Your task to perform on an android device: turn on sleep mode Image 0: 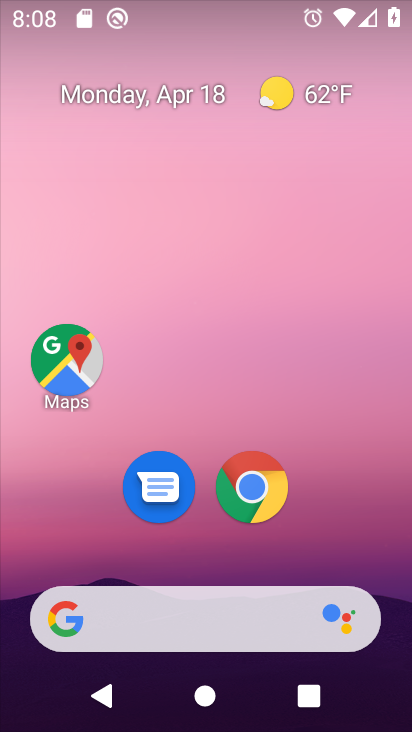
Step 0: press home button
Your task to perform on an android device: turn on sleep mode Image 1: 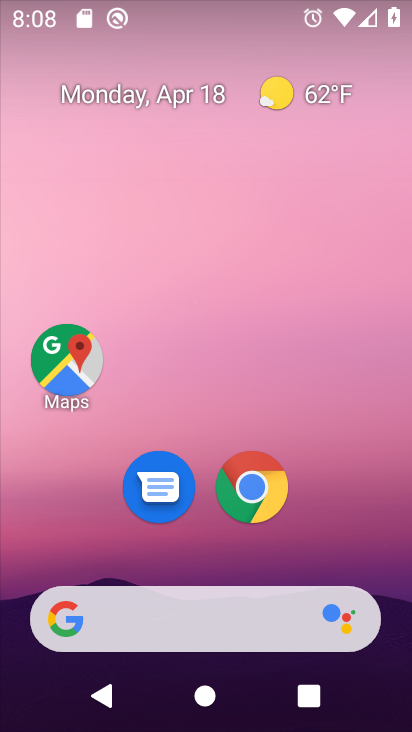
Step 1: drag from (218, 548) to (288, 73)
Your task to perform on an android device: turn on sleep mode Image 2: 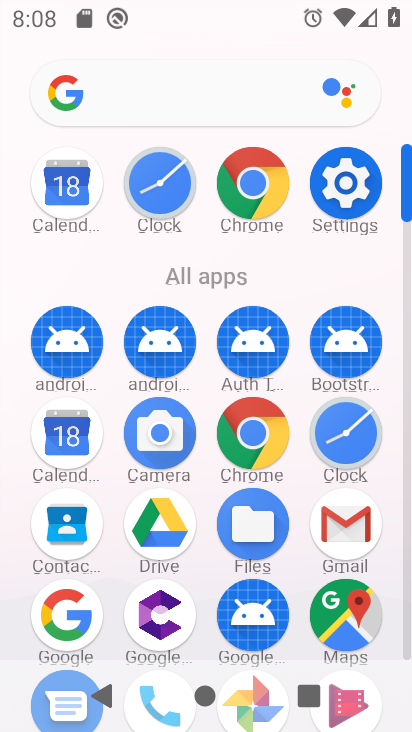
Step 2: click (344, 177)
Your task to perform on an android device: turn on sleep mode Image 3: 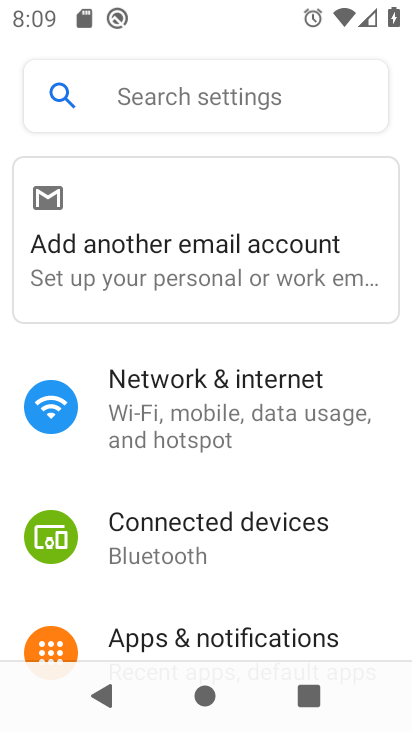
Step 3: drag from (247, 597) to (246, 118)
Your task to perform on an android device: turn on sleep mode Image 4: 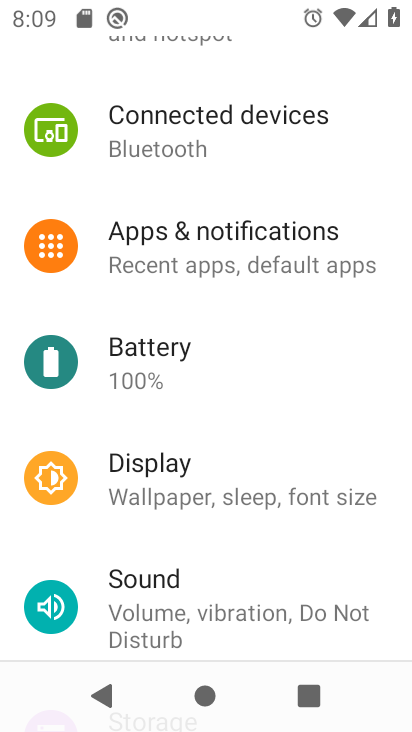
Step 4: click (182, 479)
Your task to perform on an android device: turn on sleep mode Image 5: 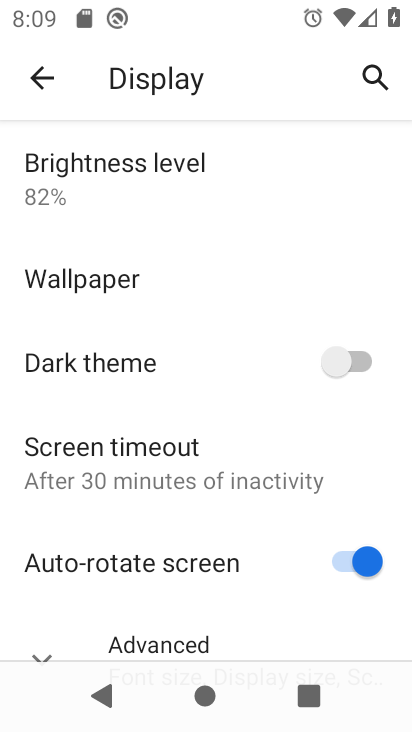
Step 5: drag from (140, 611) to (181, 239)
Your task to perform on an android device: turn on sleep mode Image 6: 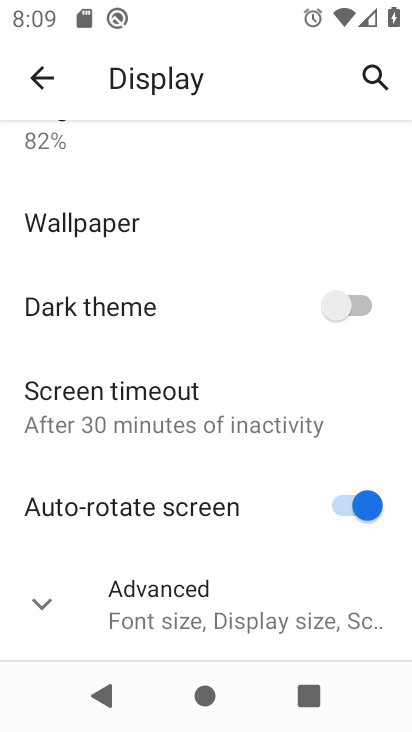
Step 6: click (35, 606)
Your task to perform on an android device: turn on sleep mode Image 7: 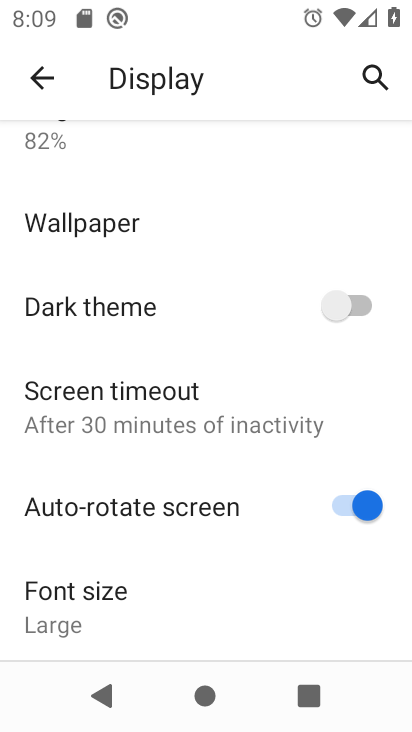
Step 7: task complete